Your task to perform on an android device: open chrome privacy settings Image 0: 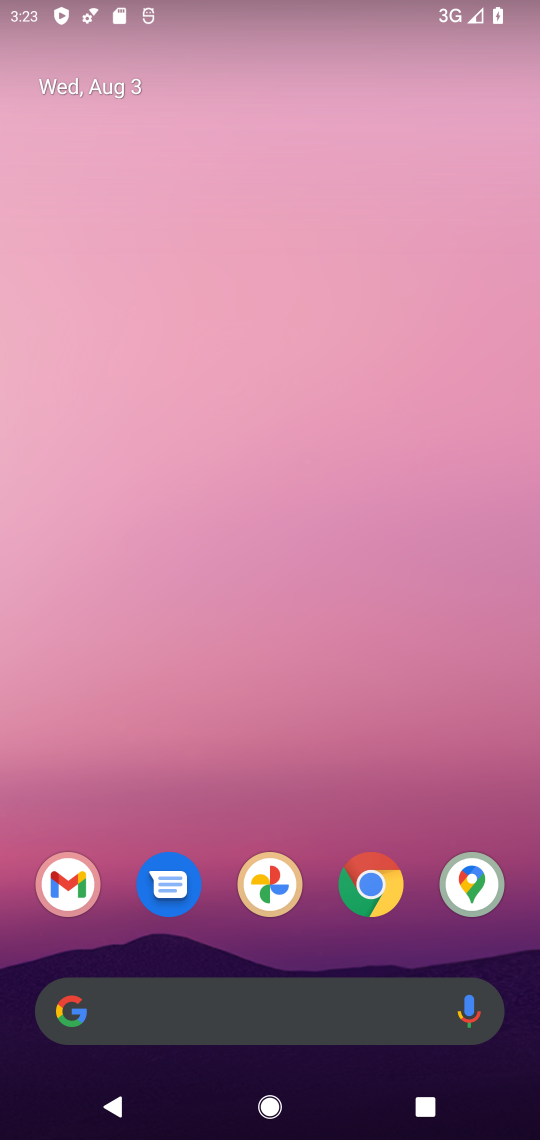
Step 0: click (359, 913)
Your task to perform on an android device: open chrome privacy settings Image 1: 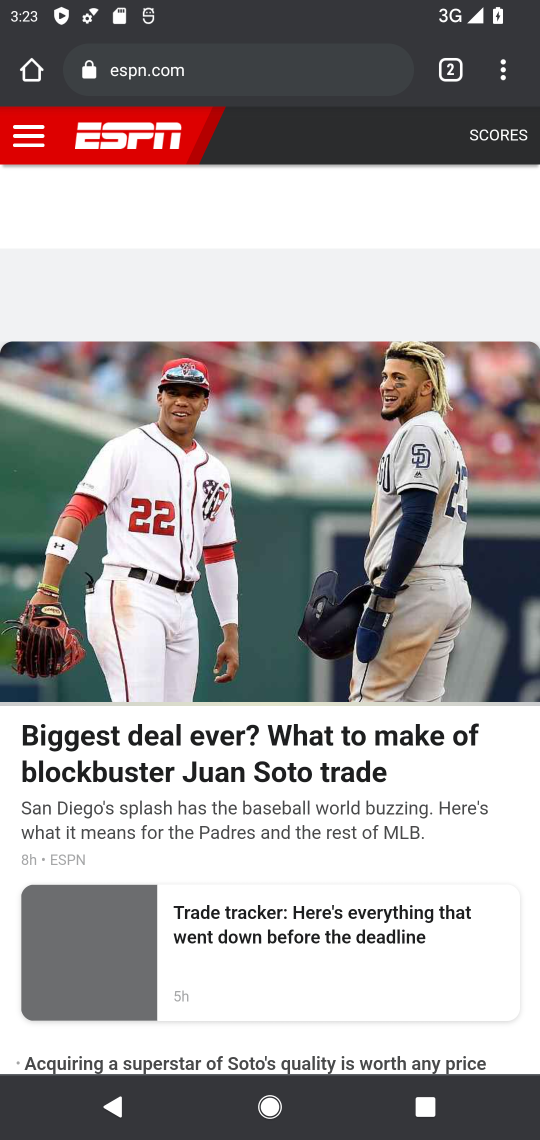
Step 1: click (497, 89)
Your task to perform on an android device: open chrome privacy settings Image 2: 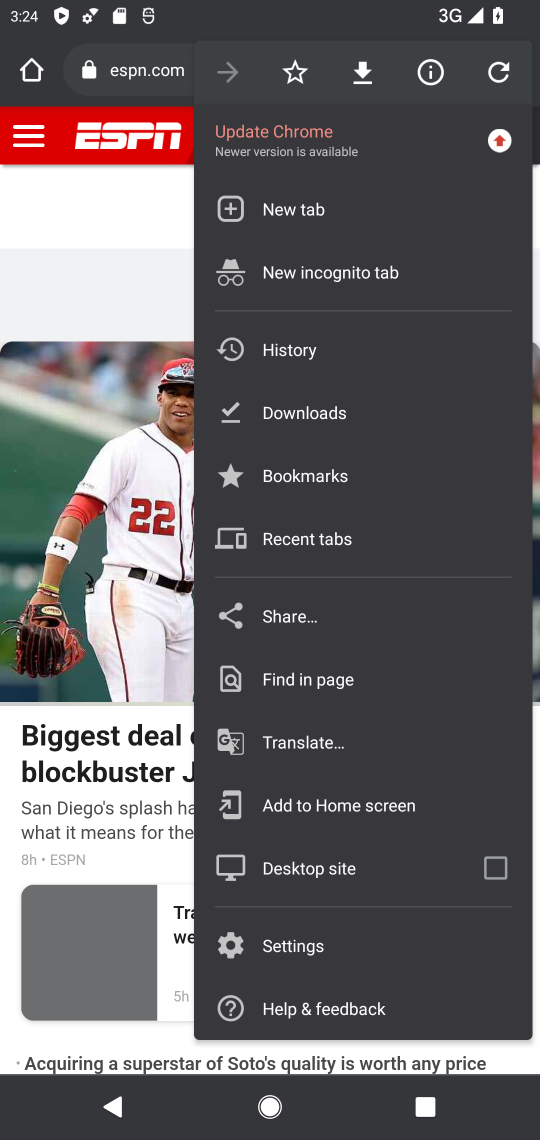
Step 2: click (279, 944)
Your task to perform on an android device: open chrome privacy settings Image 3: 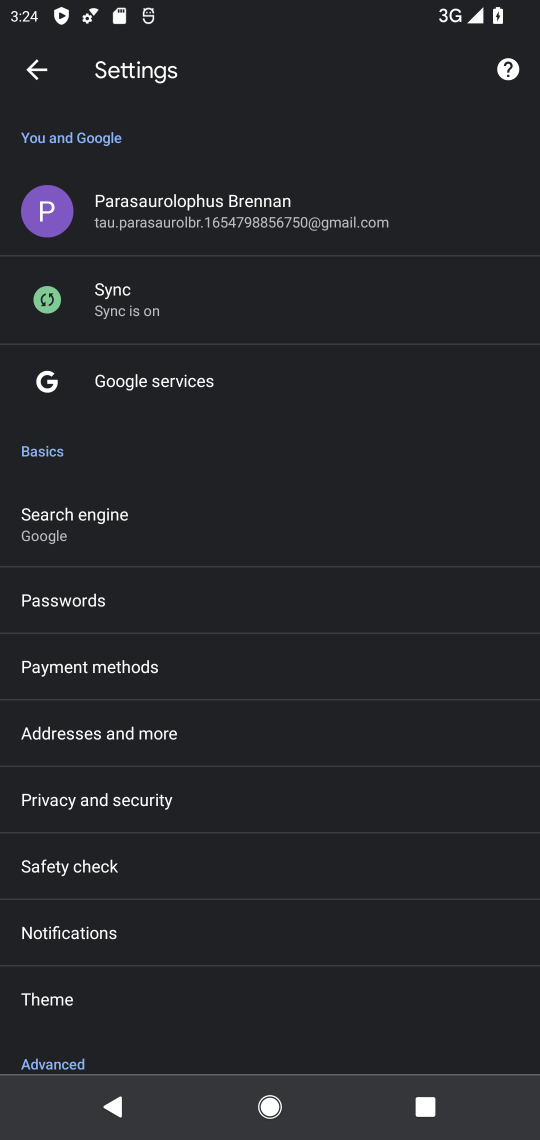
Step 3: click (136, 810)
Your task to perform on an android device: open chrome privacy settings Image 4: 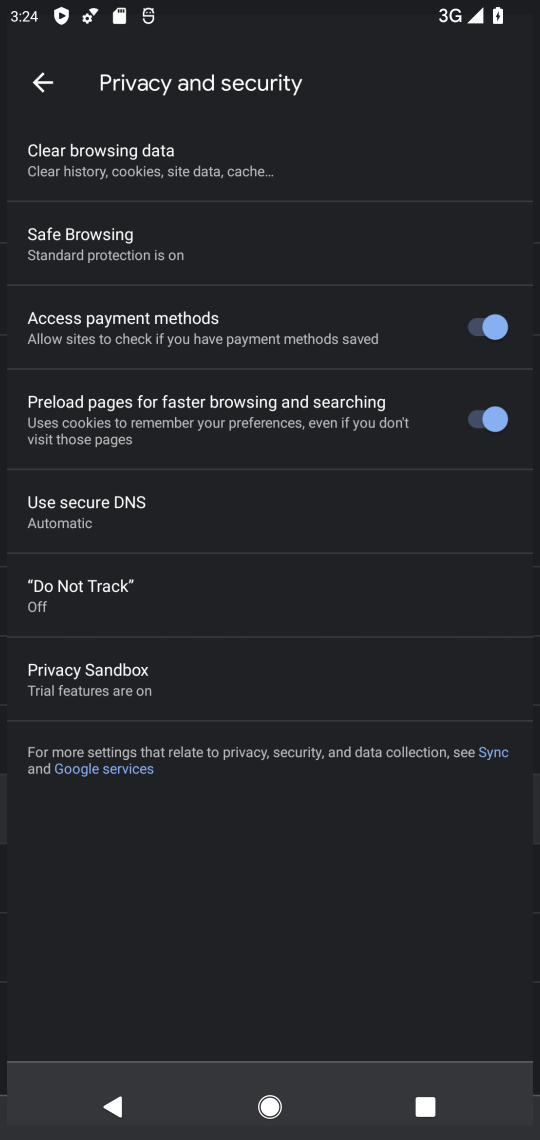
Step 4: task complete